Your task to perform on an android device: Open Chrome and go to settings Image 0: 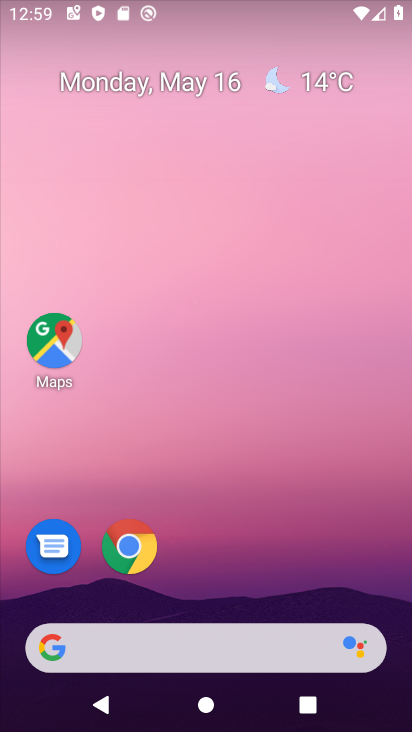
Step 0: click (243, 112)
Your task to perform on an android device: Open Chrome and go to settings Image 1: 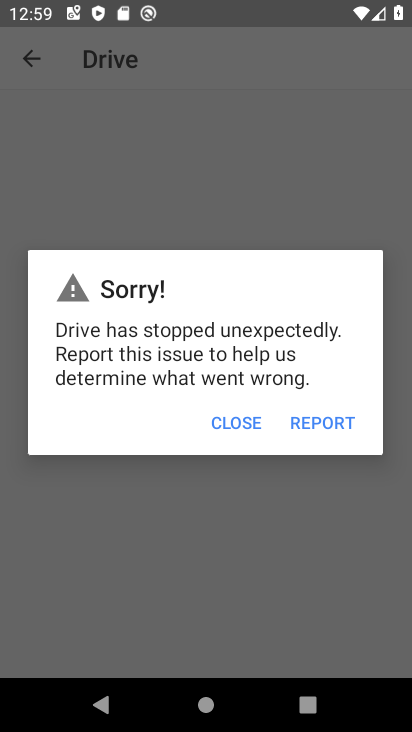
Step 1: press home button
Your task to perform on an android device: Open Chrome and go to settings Image 2: 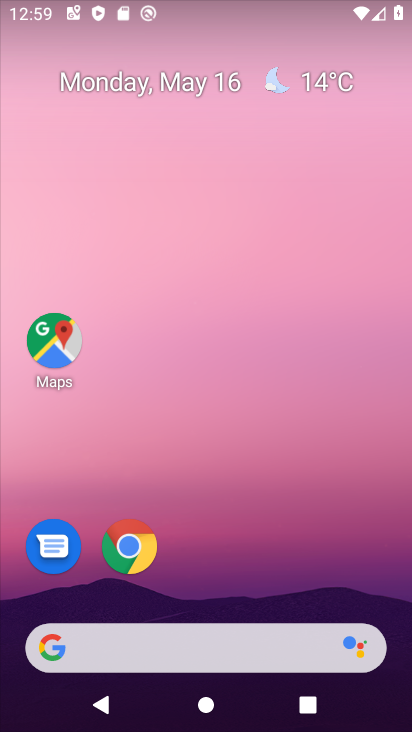
Step 2: drag from (249, 663) to (163, 49)
Your task to perform on an android device: Open Chrome and go to settings Image 3: 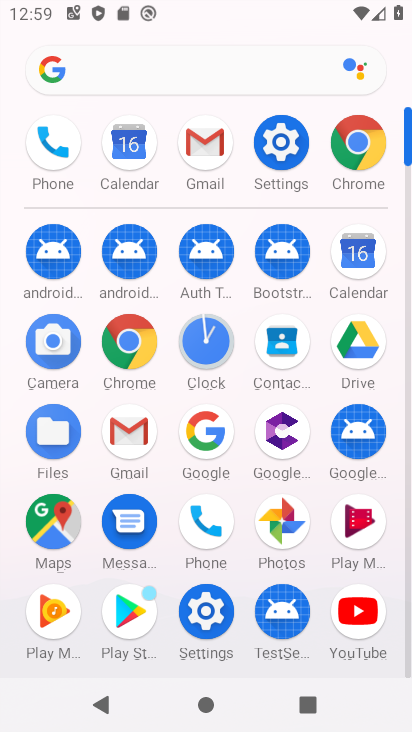
Step 3: click (349, 151)
Your task to perform on an android device: Open Chrome and go to settings Image 4: 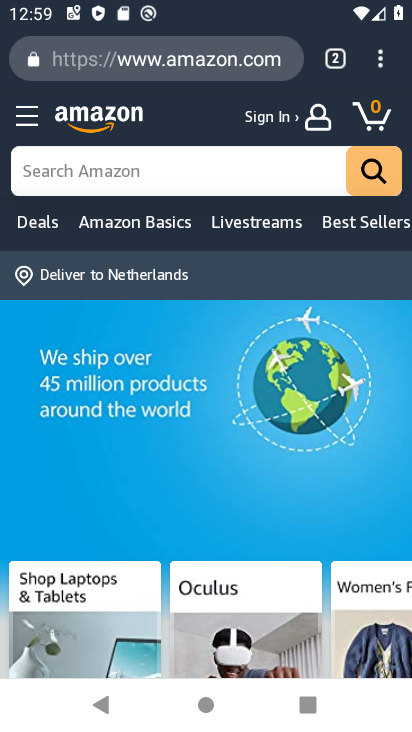
Step 4: click (384, 69)
Your task to perform on an android device: Open Chrome and go to settings Image 5: 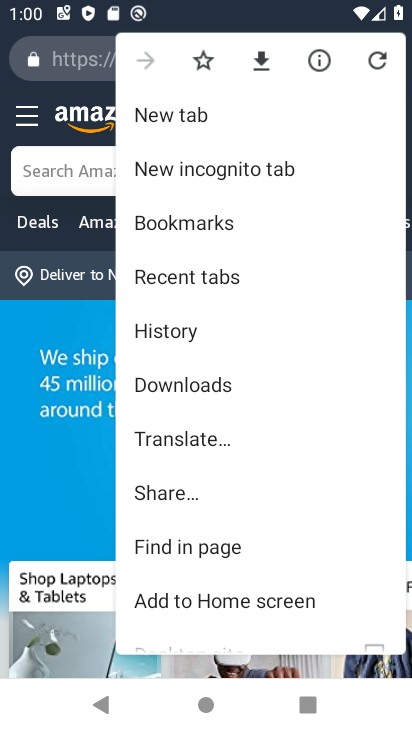
Step 5: drag from (221, 537) to (191, 285)
Your task to perform on an android device: Open Chrome and go to settings Image 6: 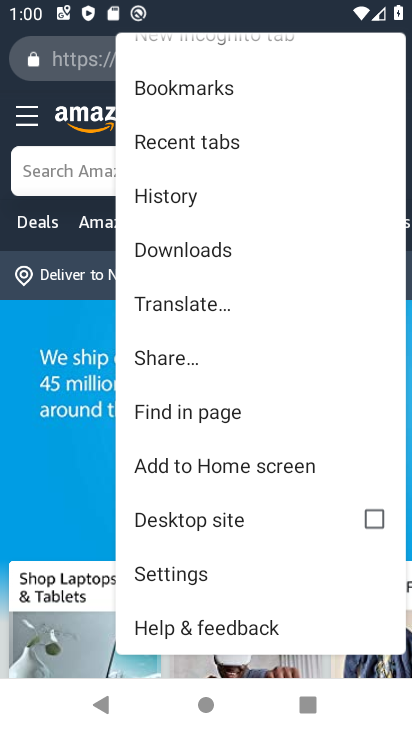
Step 6: click (201, 580)
Your task to perform on an android device: Open Chrome and go to settings Image 7: 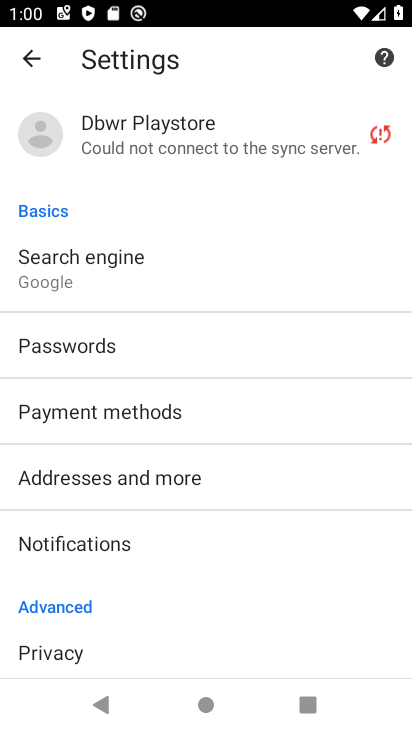
Step 7: task complete